Your task to perform on an android device: turn on airplane mode Image 0: 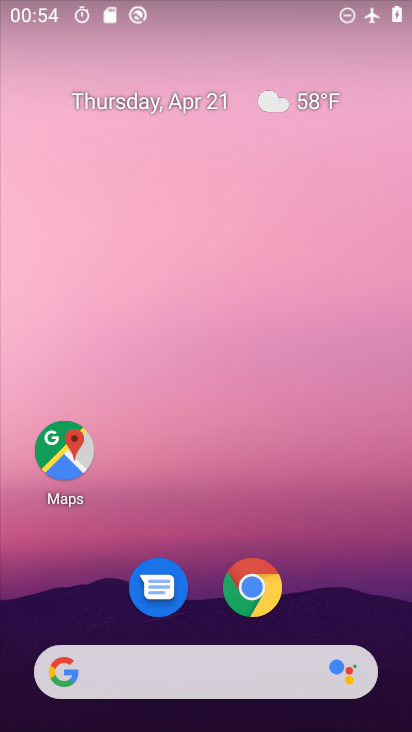
Step 0: drag from (286, 554) to (308, 94)
Your task to perform on an android device: turn on airplane mode Image 1: 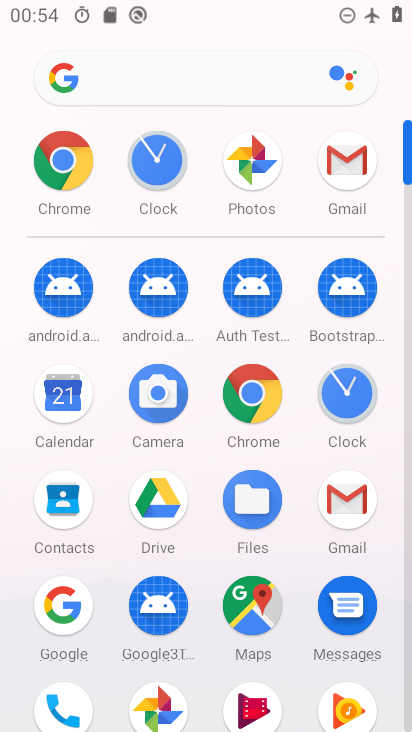
Step 1: drag from (189, 564) to (268, 169)
Your task to perform on an android device: turn on airplane mode Image 2: 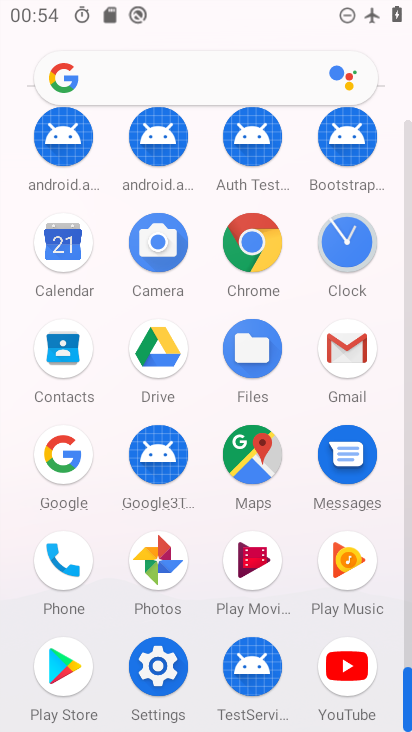
Step 2: click (150, 689)
Your task to perform on an android device: turn on airplane mode Image 3: 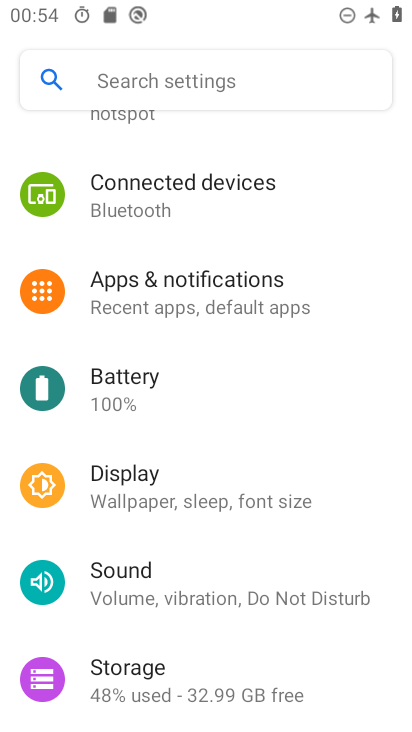
Step 3: drag from (184, 223) to (131, 498)
Your task to perform on an android device: turn on airplane mode Image 4: 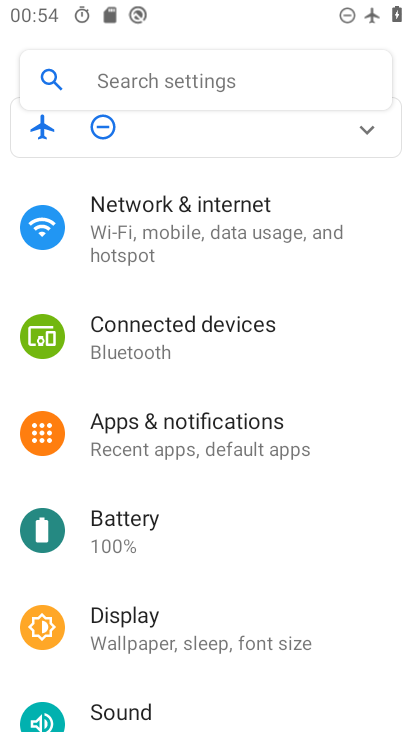
Step 4: click (148, 231)
Your task to perform on an android device: turn on airplane mode Image 5: 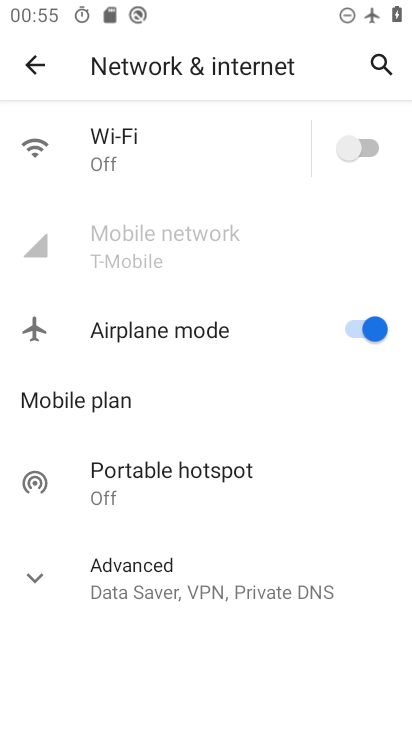
Step 5: task complete